Your task to perform on an android device: Go to ESPN.com Image 0: 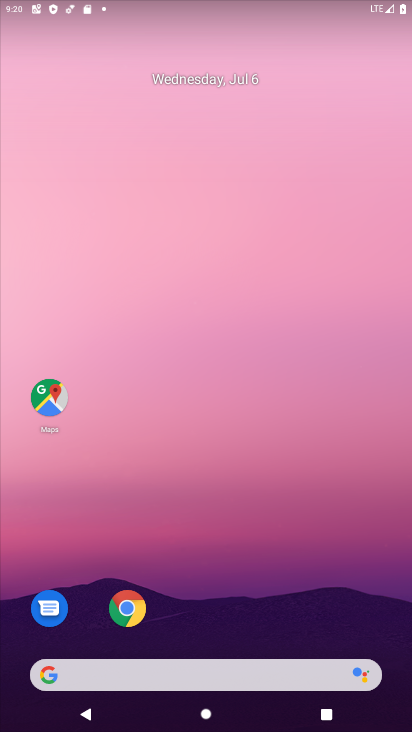
Step 0: click (117, 607)
Your task to perform on an android device: Go to ESPN.com Image 1: 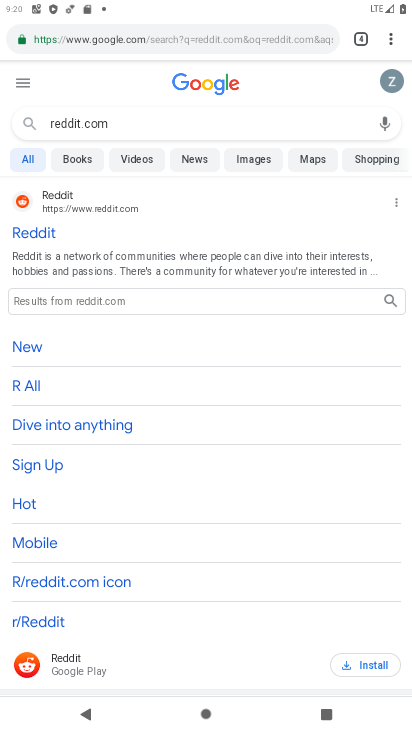
Step 1: click (393, 38)
Your task to perform on an android device: Go to ESPN.com Image 2: 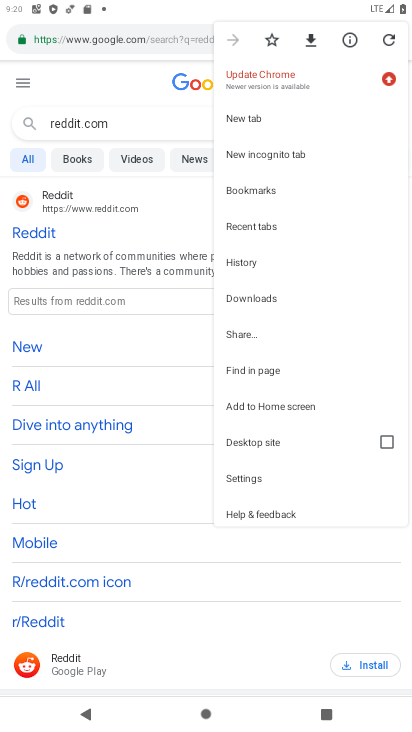
Step 2: click (250, 117)
Your task to perform on an android device: Go to ESPN.com Image 3: 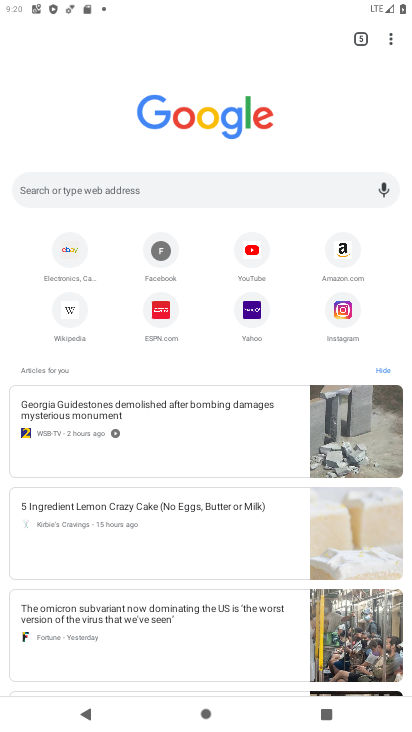
Step 3: click (160, 313)
Your task to perform on an android device: Go to ESPN.com Image 4: 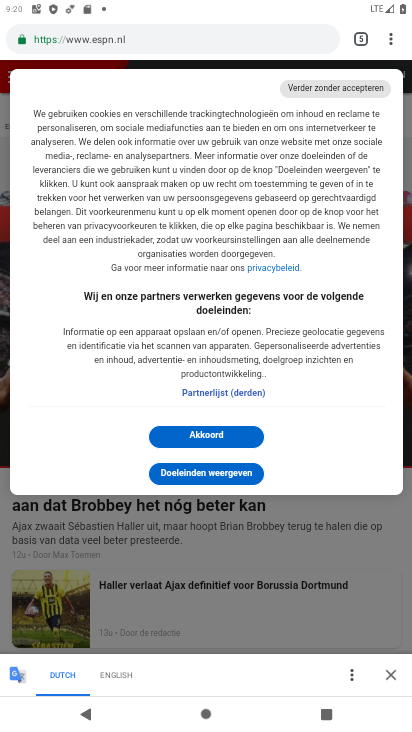
Step 4: task complete